Your task to perform on an android device: find snoozed emails in the gmail app Image 0: 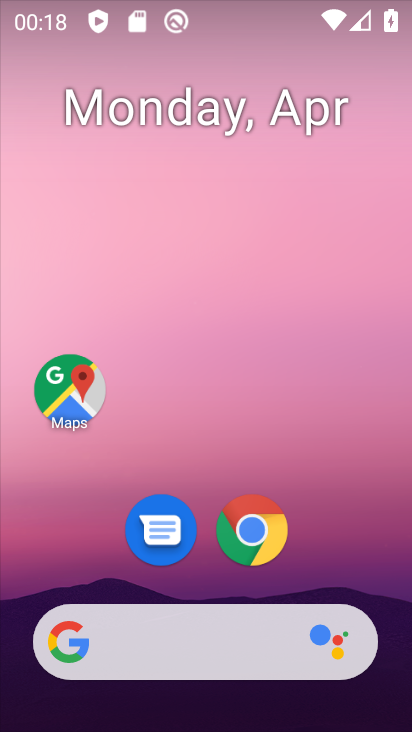
Step 0: drag from (212, 626) to (333, 26)
Your task to perform on an android device: find snoozed emails in the gmail app Image 1: 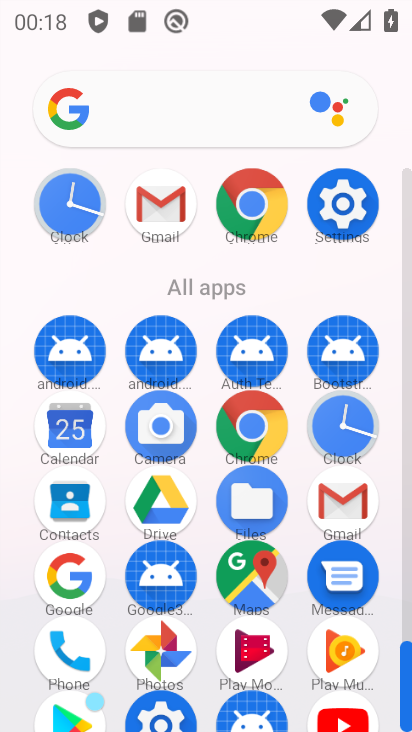
Step 1: click (168, 212)
Your task to perform on an android device: find snoozed emails in the gmail app Image 2: 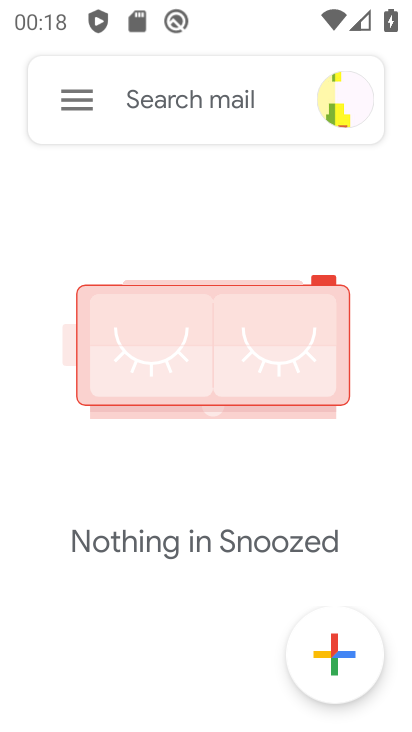
Step 2: task complete